Your task to perform on an android device: turn on translation in the chrome app Image 0: 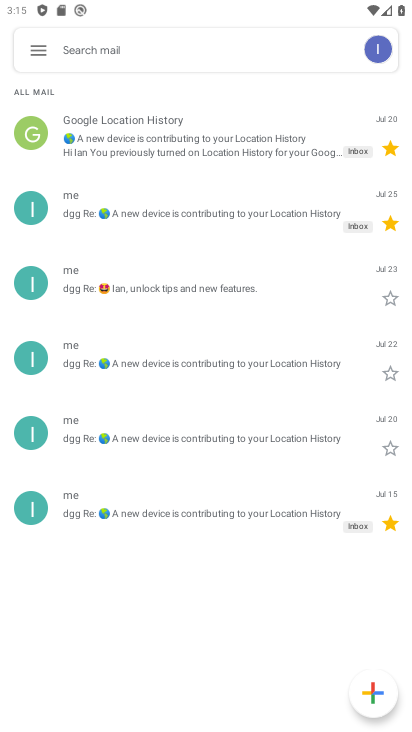
Step 0: press home button
Your task to perform on an android device: turn on translation in the chrome app Image 1: 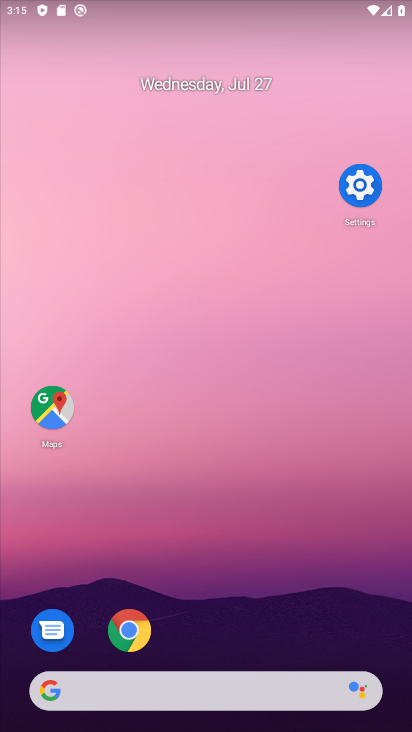
Step 1: click (114, 637)
Your task to perform on an android device: turn on translation in the chrome app Image 2: 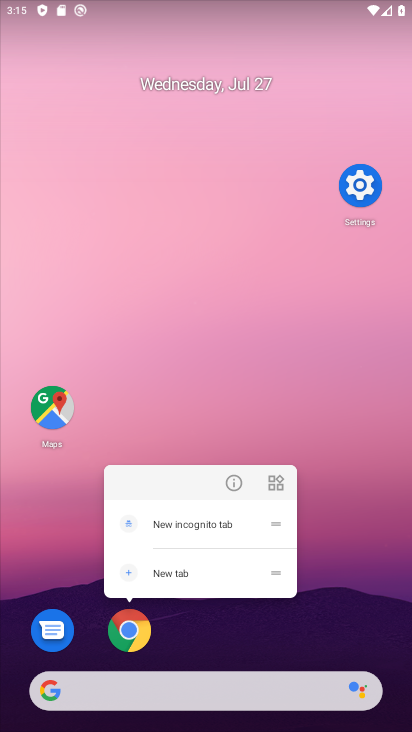
Step 2: click (114, 634)
Your task to perform on an android device: turn on translation in the chrome app Image 3: 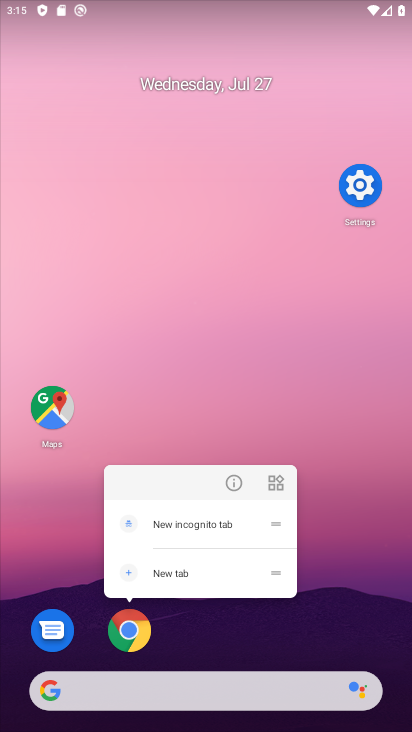
Step 3: click (114, 634)
Your task to perform on an android device: turn on translation in the chrome app Image 4: 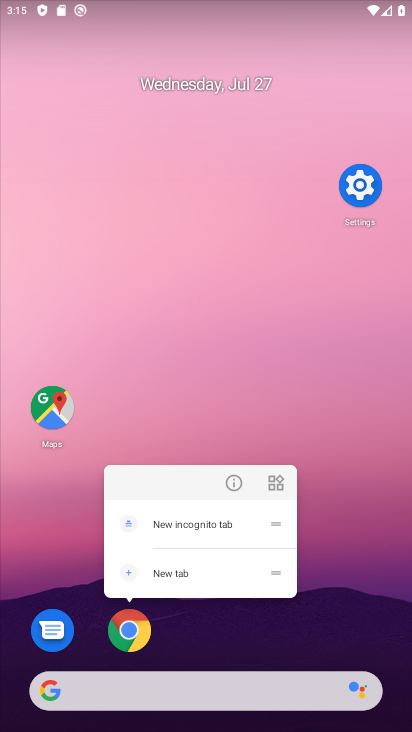
Step 4: click (114, 634)
Your task to perform on an android device: turn on translation in the chrome app Image 5: 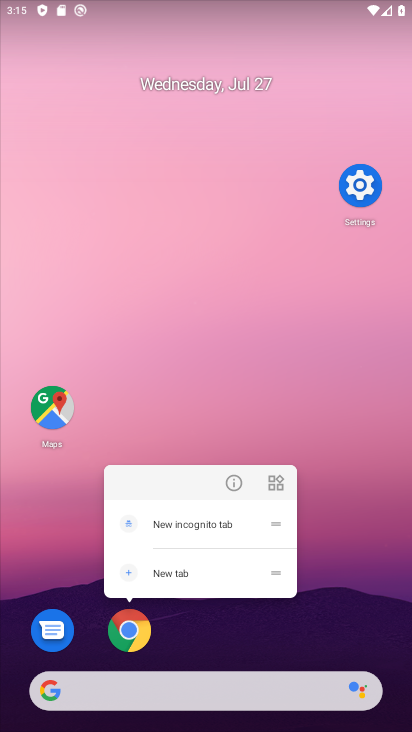
Step 5: click (131, 645)
Your task to perform on an android device: turn on translation in the chrome app Image 6: 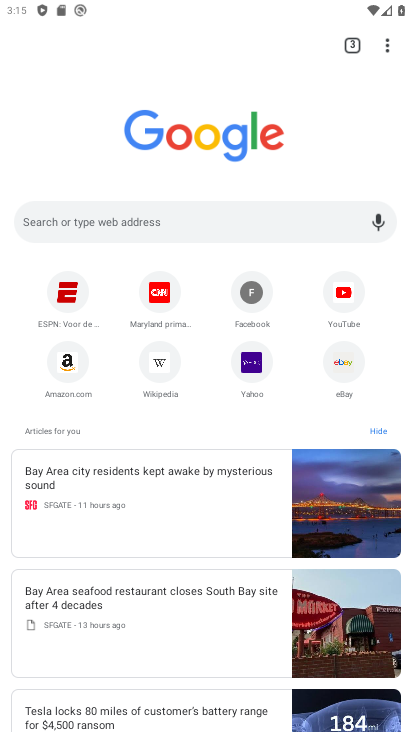
Step 6: drag from (387, 50) to (226, 431)
Your task to perform on an android device: turn on translation in the chrome app Image 7: 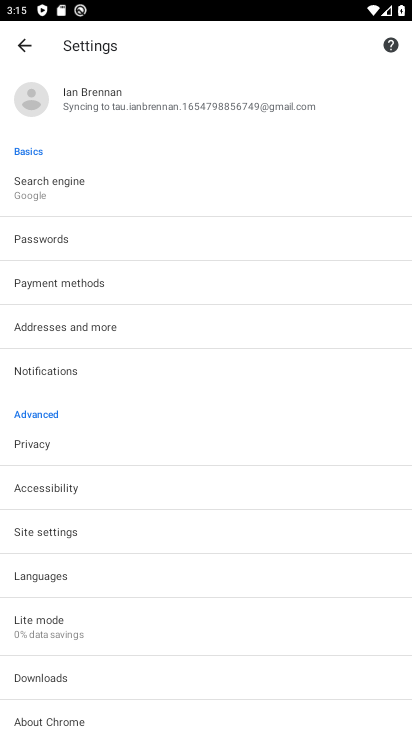
Step 7: click (62, 577)
Your task to perform on an android device: turn on translation in the chrome app Image 8: 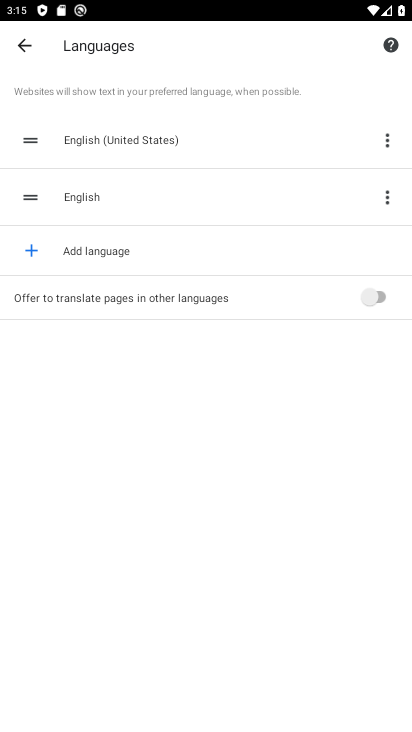
Step 8: click (379, 300)
Your task to perform on an android device: turn on translation in the chrome app Image 9: 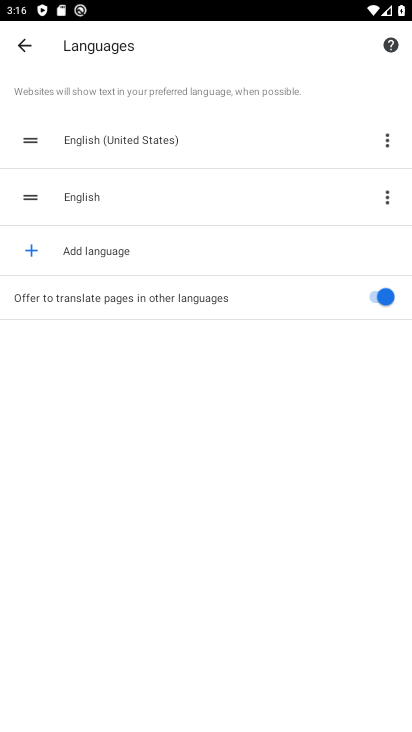
Step 9: task complete